Your task to perform on an android device: turn off priority inbox in the gmail app Image 0: 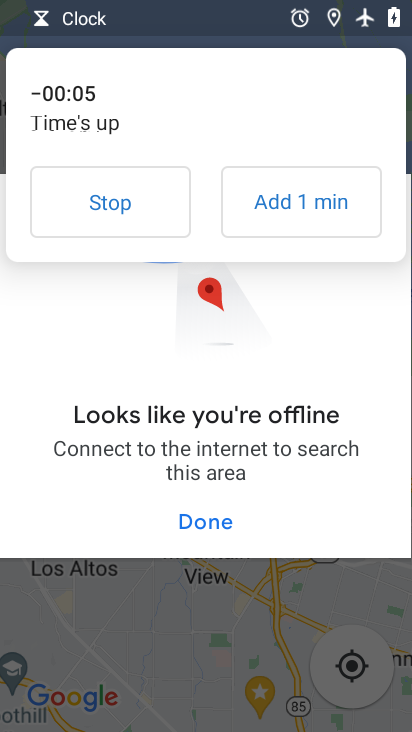
Step 0: click (127, 214)
Your task to perform on an android device: turn off priority inbox in the gmail app Image 1: 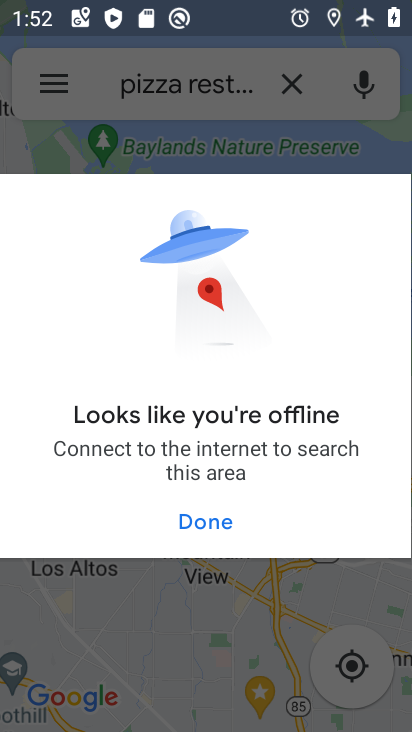
Step 1: press home button
Your task to perform on an android device: turn off priority inbox in the gmail app Image 2: 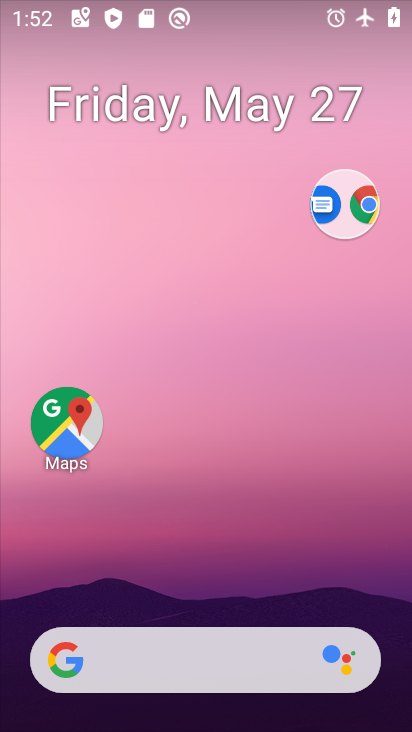
Step 2: drag from (202, 581) to (203, 215)
Your task to perform on an android device: turn off priority inbox in the gmail app Image 3: 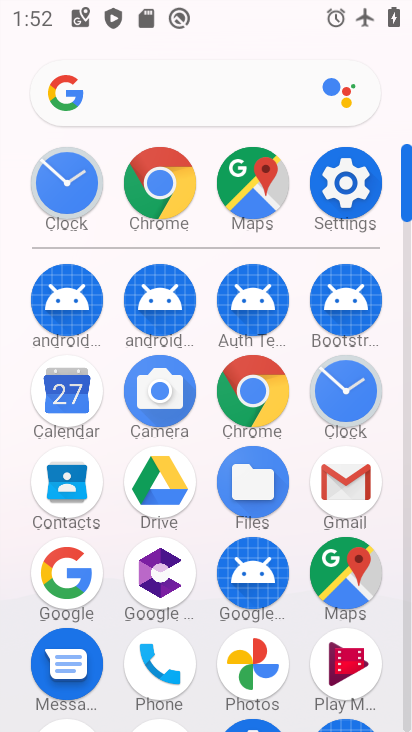
Step 3: click (343, 499)
Your task to perform on an android device: turn off priority inbox in the gmail app Image 4: 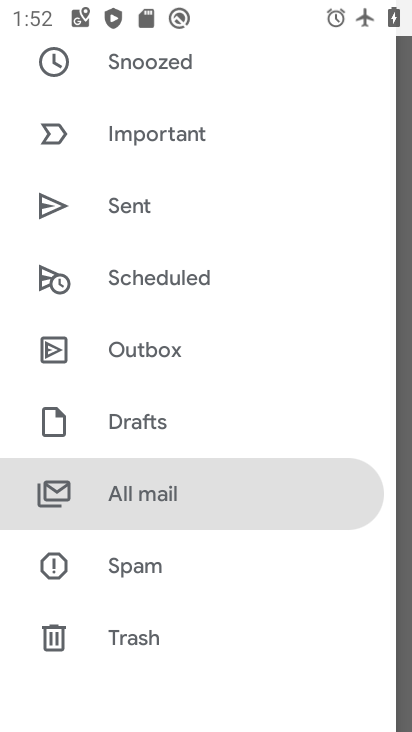
Step 4: drag from (189, 574) to (170, 279)
Your task to perform on an android device: turn off priority inbox in the gmail app Image 5: 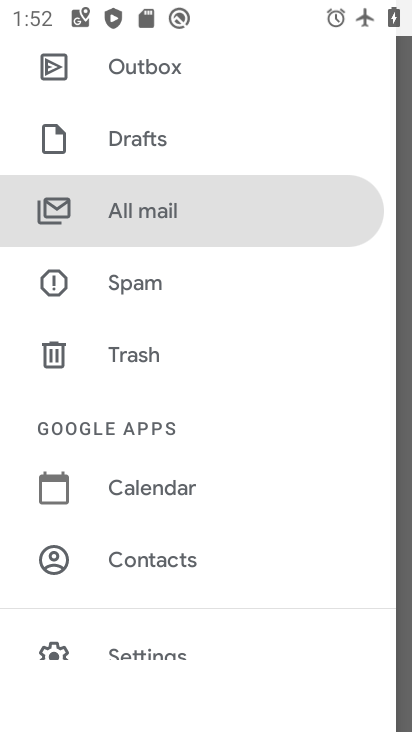
Step 5: drag from (102, 563) to (157, 240)
Your task to perform on an android device: turn off priority inbox in the gmail app Image 6: 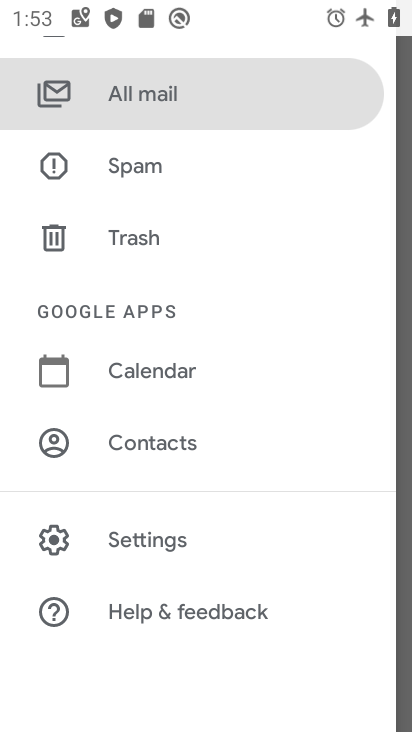
Step 6: click (143, 545)
Your task to perform on an android device: turn off priority inbox in the gmail app Image 7: 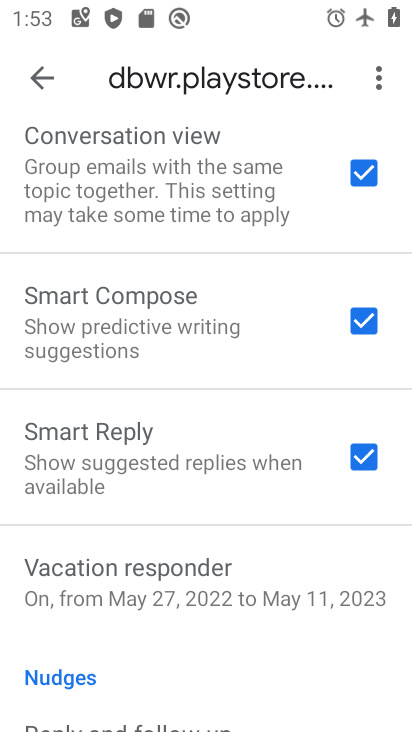
Step 7: task complete